Your task to perform on an android device: Open Google Chrome Image 0: 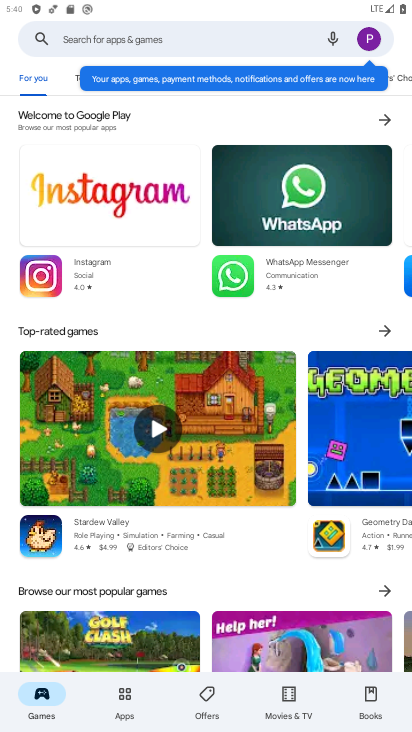
Step 0: press home button
Your task to perform on an android device: Open Google Chrome Image 1: 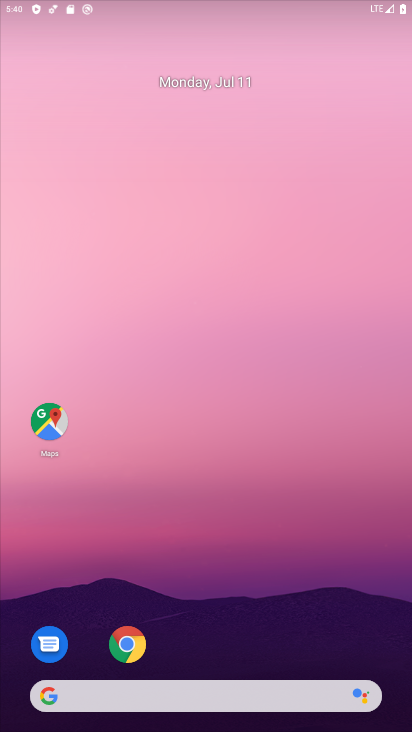
Step 1: drag from (256, 662) to (315, 69)
Your task to perform on an android device: Open Google Chrome Image 2: 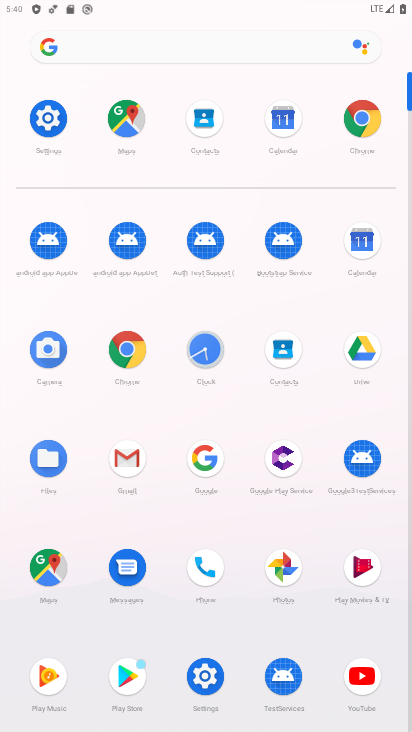
Step 2: click (130, 358)
Your task to perform on an android device: Open Google Chrome Image 3: 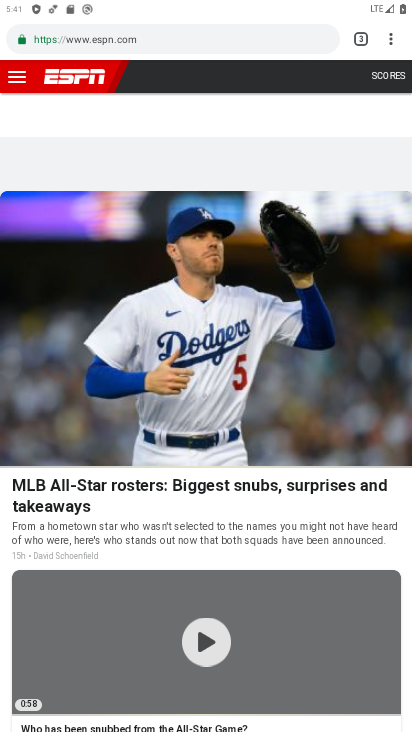
Step 3: press home button
Your task to perform on an android device: Open Google Chrome Image 4: 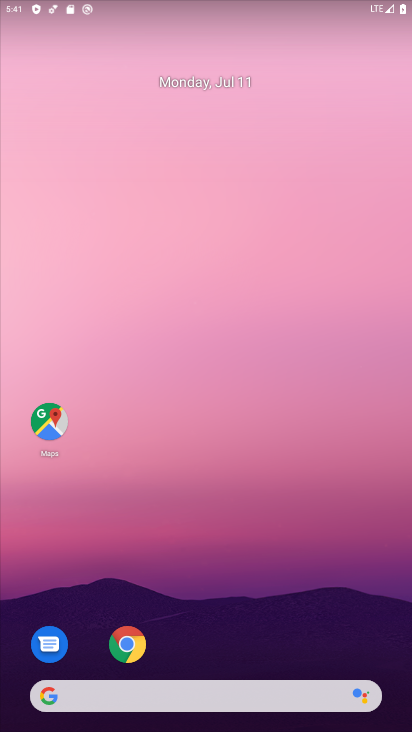
Step 4: drag from (190, 637) to (188, 89)
Your task to perform on an android device: Open Google Chrome Image 5: 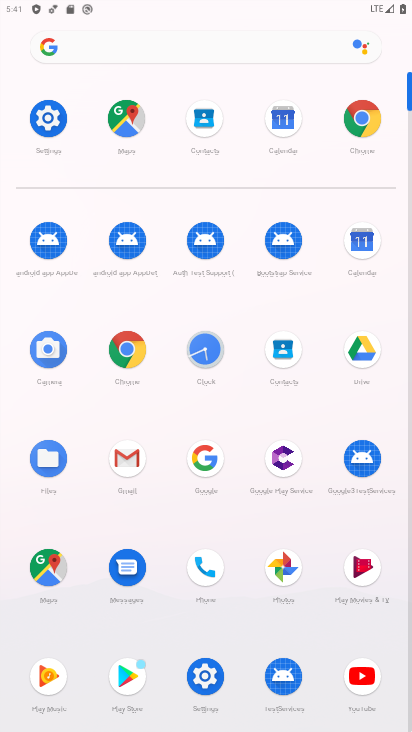
Step 5: click (127, 345)
Your task to perform on an android device: Open Google Chrome Image 6: 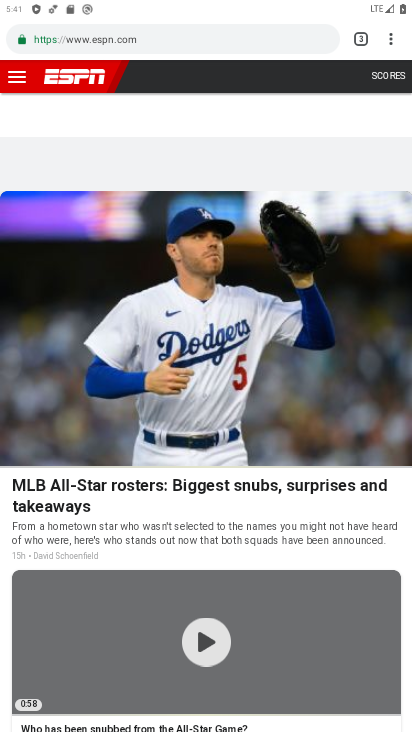
Step 6: task complete